Your task to perform on an android device: turn off wifi Image 0: 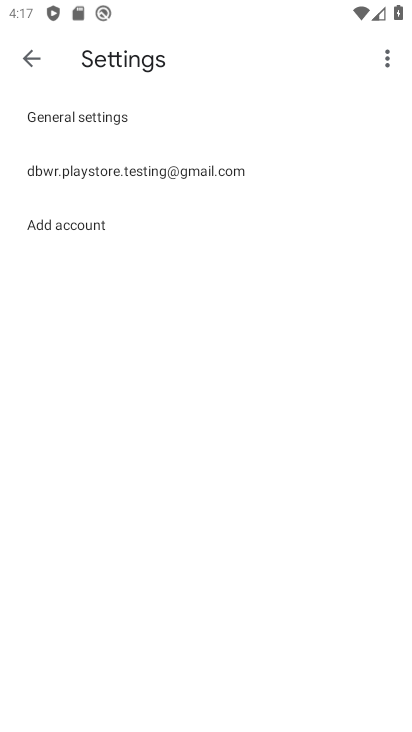
Step 0: press home button
Your task to perform on an android device: turn off wifi Image 1: 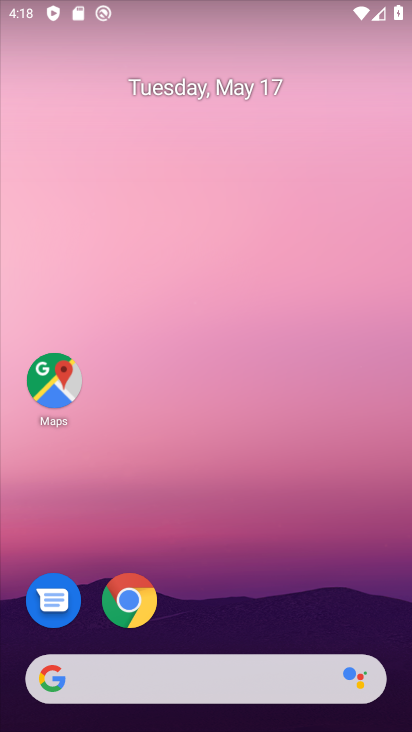
Step 1: drag from (307, 14) to (347, 453)
Your task to perform on an android device: turn off wifi Image 2: 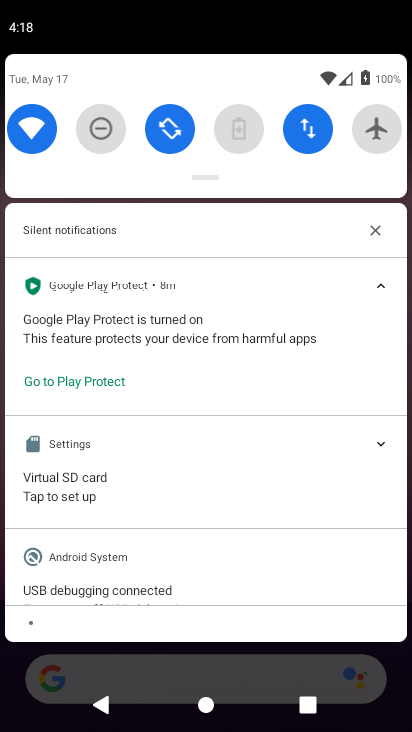
Step 2: drag from (205, 178) to (224, 380)
Your task to perform on an android device: turn off wifi Image 3: 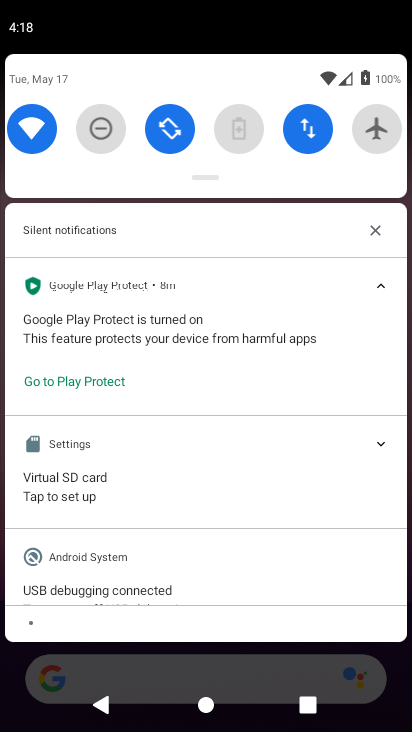
Step 3: drag from (208, 183) to (237, 520)
Your task to perform on an android device: turn off wifi Image 4: 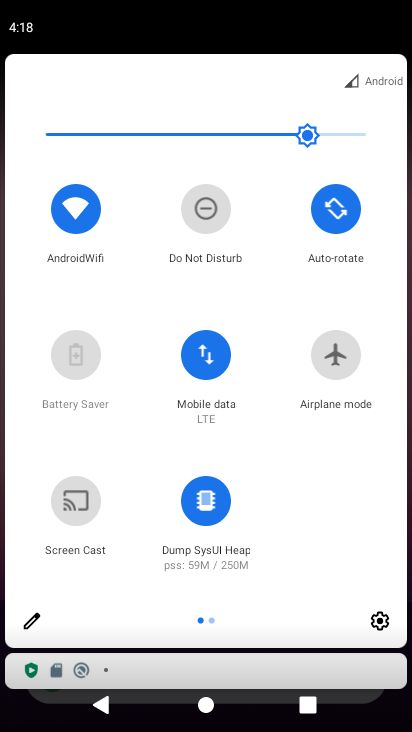
Step 4: press home button
Your task to perform on an android device: turn off wifi Image 5: 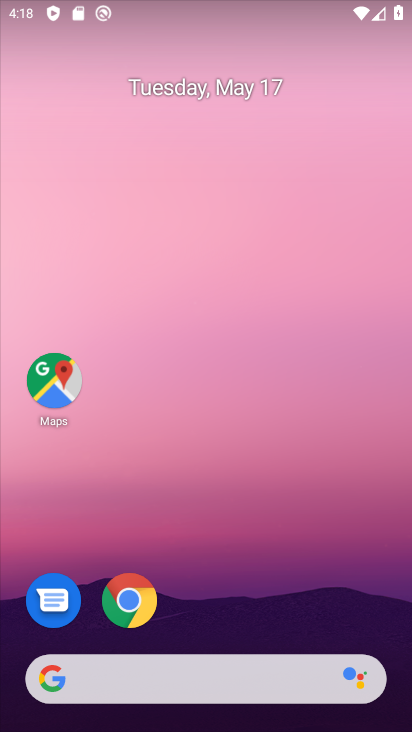
Step 5: drag from (373, 619) to (334, 130)
Your task to perform on an android device: turn off wifi Image 6: 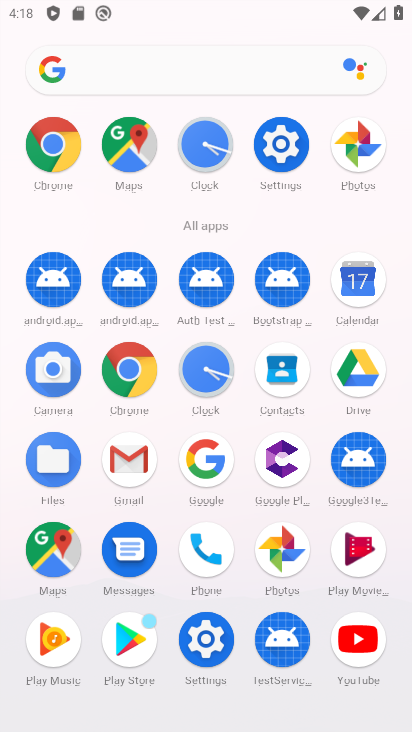
Step 6: click (207, 633)
Your task to perform on an android device: turn off wifi Image 7: 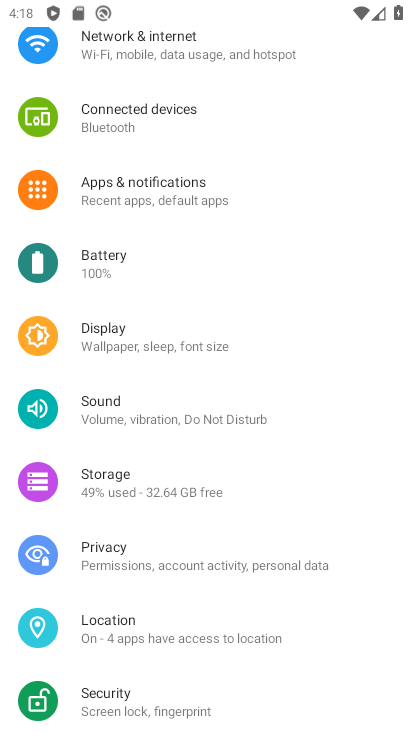
Step 7: drag from (317, 250) to (330, 467)
Your task to perform on an android device: turn off wifi Image 8: 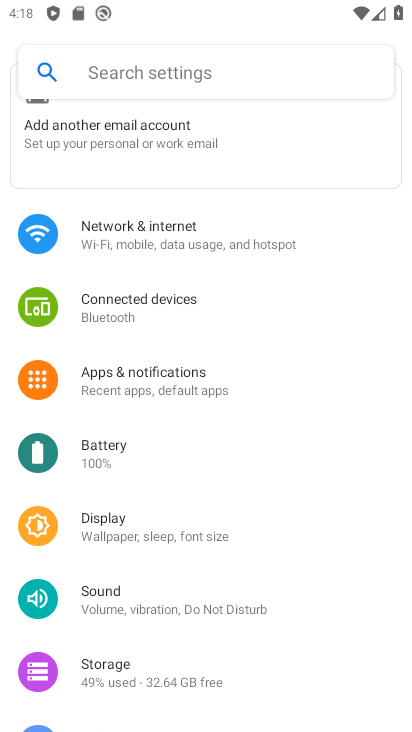
Step 8: click (103, 227)
Your task to perform on an android device: turn off wifi Image 9: 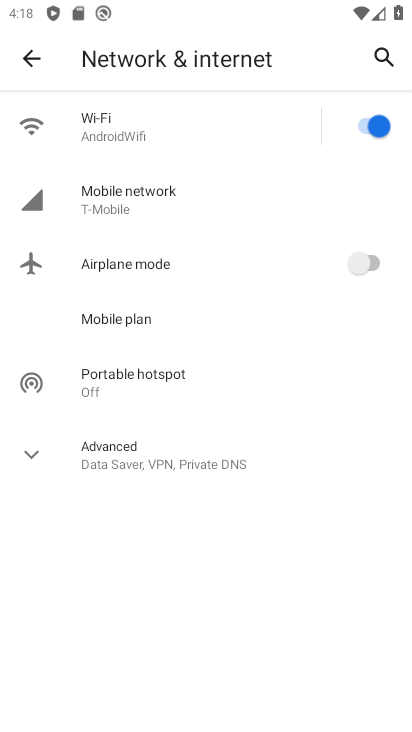
Step 9: click (359, 129)
Your task to perform on an android device: turn off wifi Image 10: 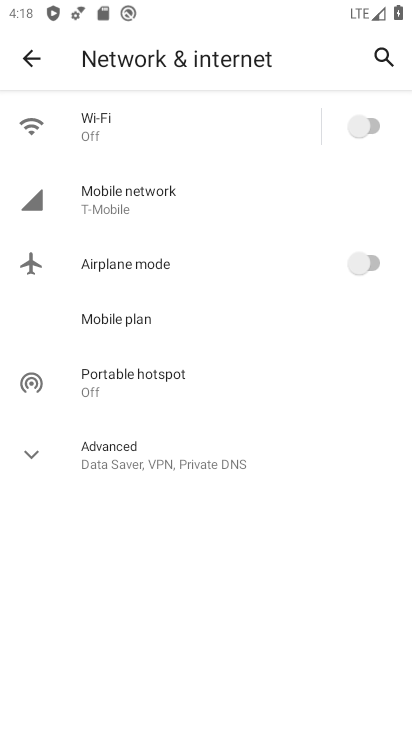
Step 10: task complete